Your task to perform on an android device: Open Chrome and go to the settings page Image 0: 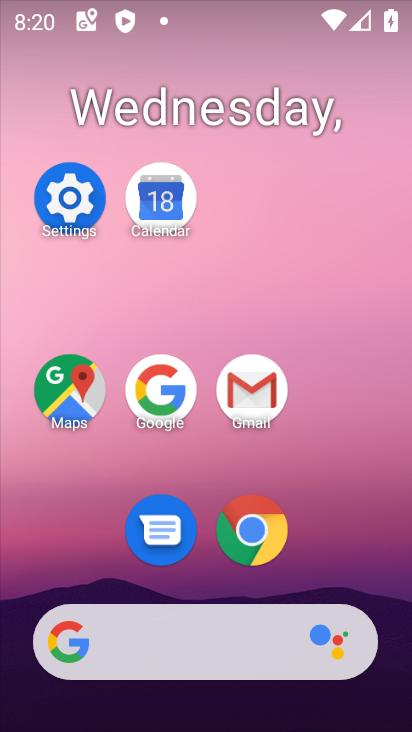
Step 0: click (264, 541)
Your task to perform on an android device: Open Chrome and go to the settings page Image 1: 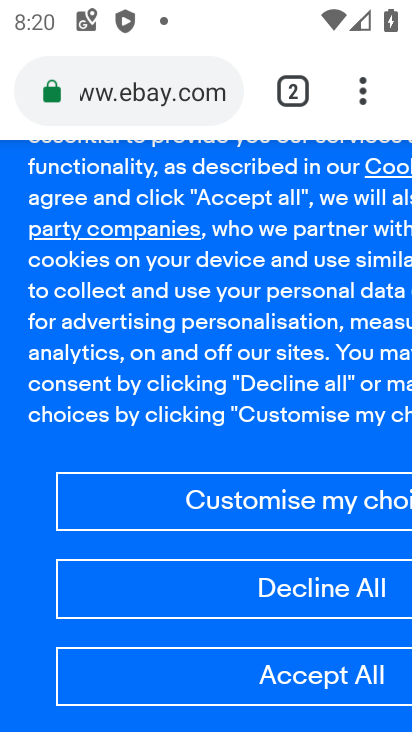
Step 1: click (376, 87)
Your task to perform on an android device: Open Chrome and go to the settings page Image 2: 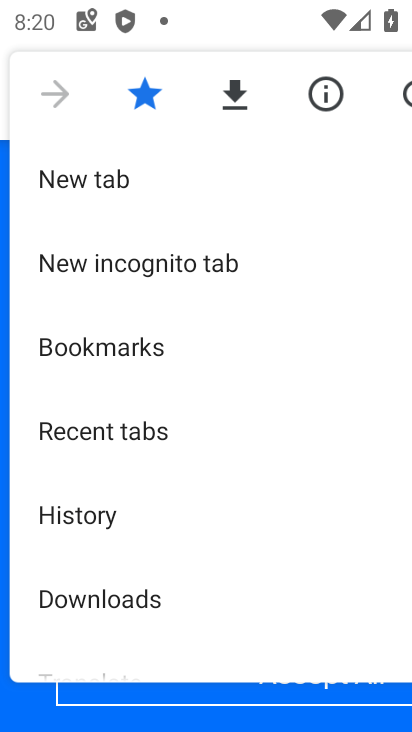
Step 2: drag from (229, 549) to (230, 153)
Your task to perform on an android device: Open Chrome and go to the settings page Image 3: 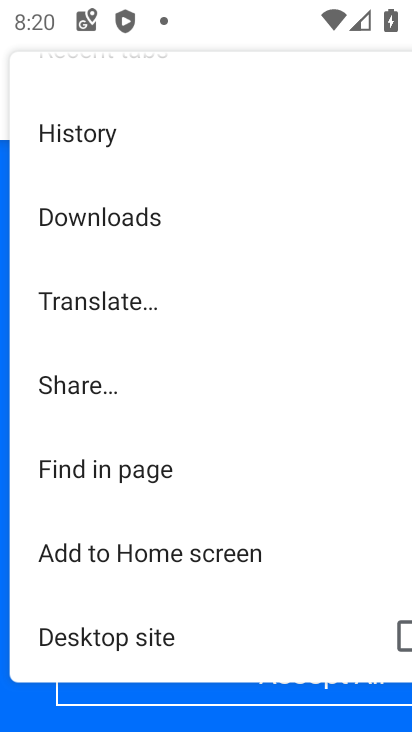
Step 3: drag from (136, 580) to (203, 216)
Your task to perform on an android device: Open Chrome and go to the settings page Image 4: 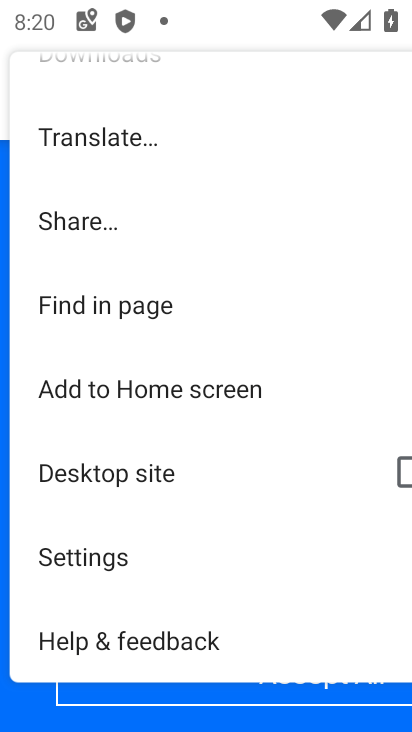
Step 4: click (103, 545)
Your task to perform on an android device: Open Chrome and go to the settings page Image 5: 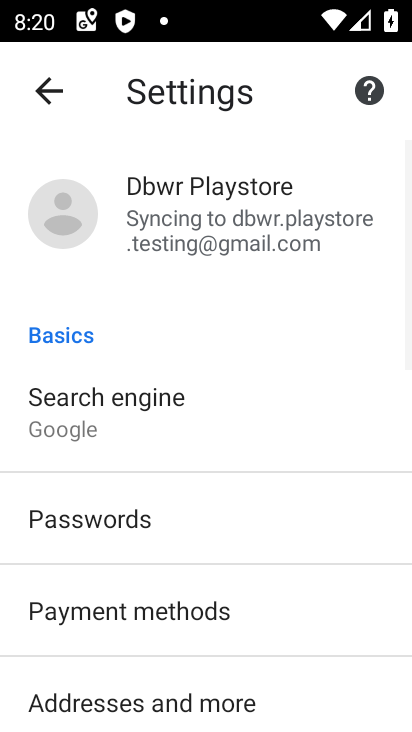
Step 5: task complete